Your task to perform on an android device: change notification settings in the gmail app Image 0: 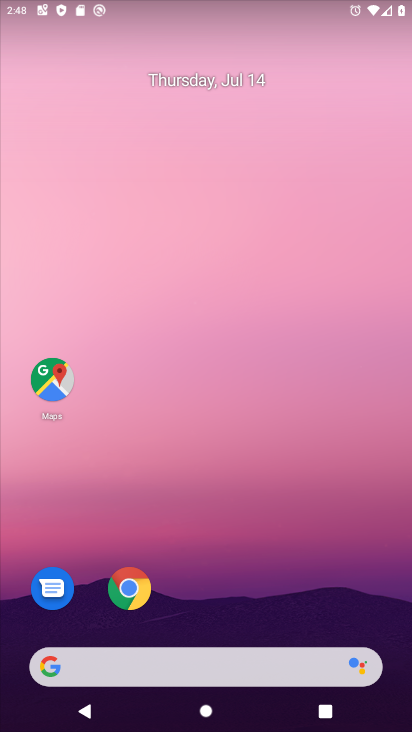
Step 0: drag from (253, 593) to (246, 303)
Your task to perform on an android device: change notification settings in the gmail app Image 1: 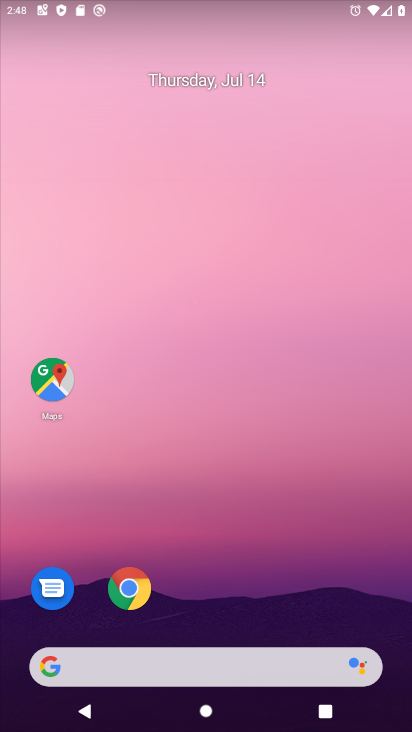
Step 1: drag from (214, 656) to (222, 292)
Your task to perform on an android device: change notification settings in the gmail app Image 2: 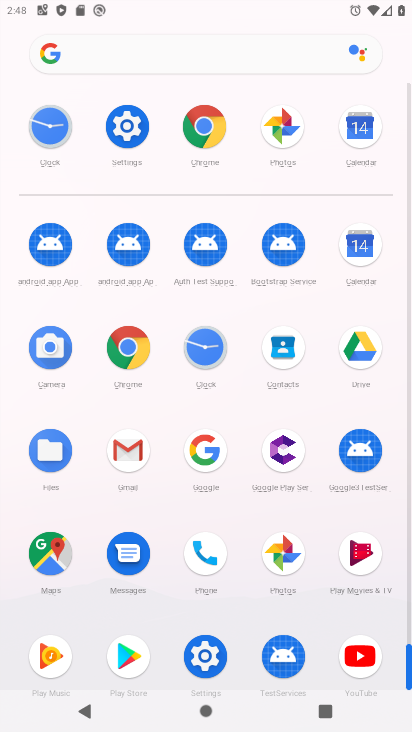
Step 2: click (116, 440)
Your task to perform on an android device: change notification settings in the gmail app Image 3: 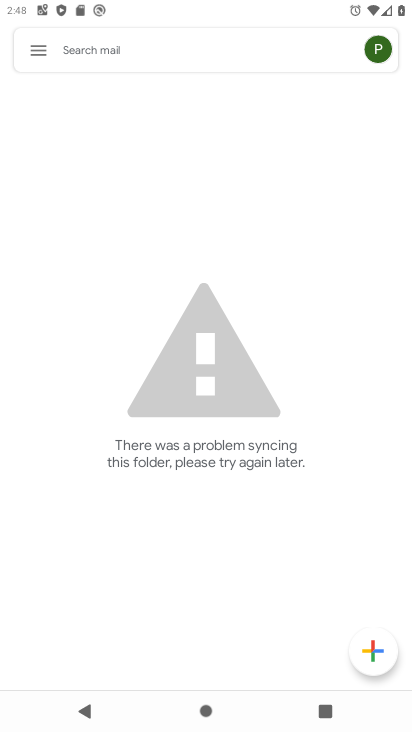
Step 3: click (41, 39)
Your task to perform on an android device: change notification settings in the gmail app Image 4: 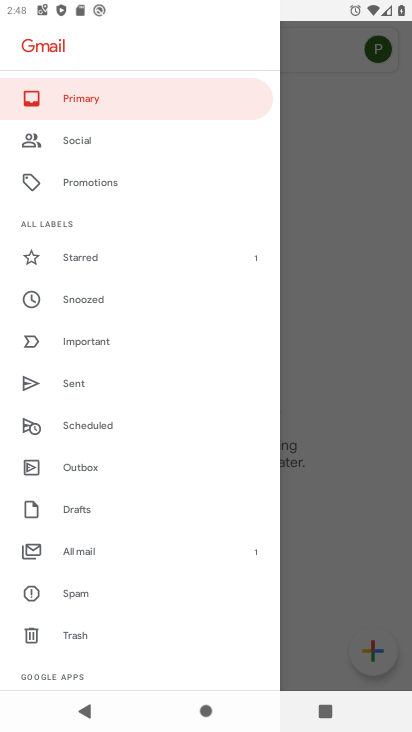
Step 4: drag from (135, 609) to (141, 308)
Your task to perform on an android device: change notification settings in the gmail app Image 5: 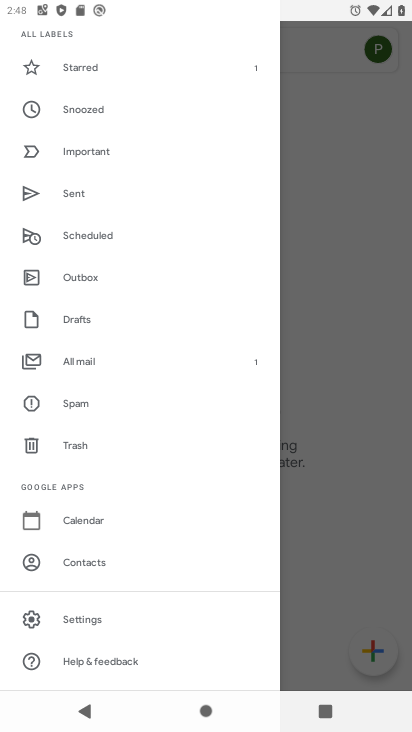
Step 5: click (86, 603)
Your task to perform on an android device: change notification settings in the gmail app Image 6: 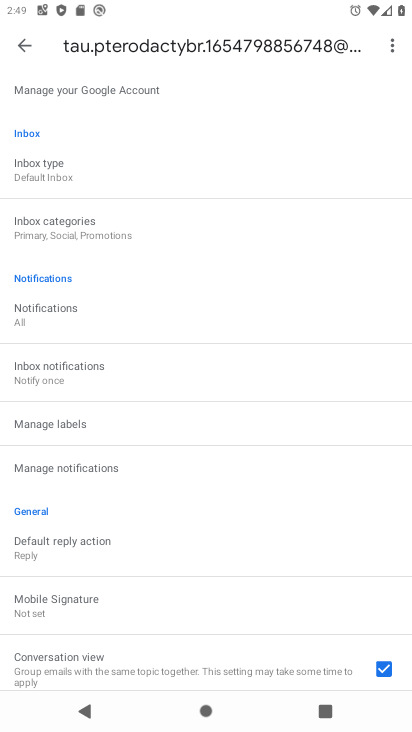
Step 6: click (67, 304)
Your task to perform on an android device: change notification settings in the gmail app Image 7: 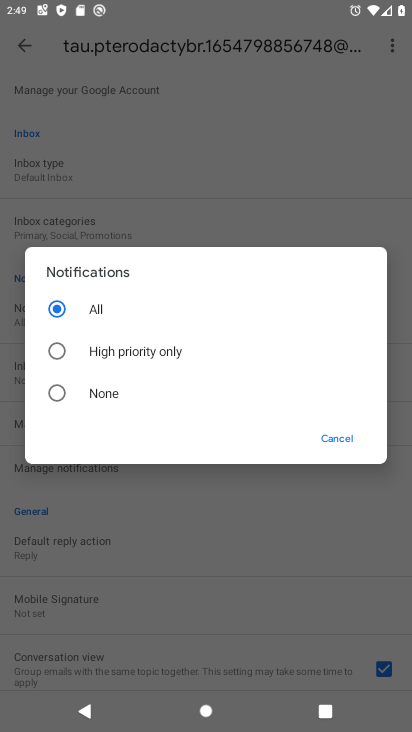
Step 7: click (94, 390)
Your task to perform on an android device: change notification settings in the gmail app Image 8: 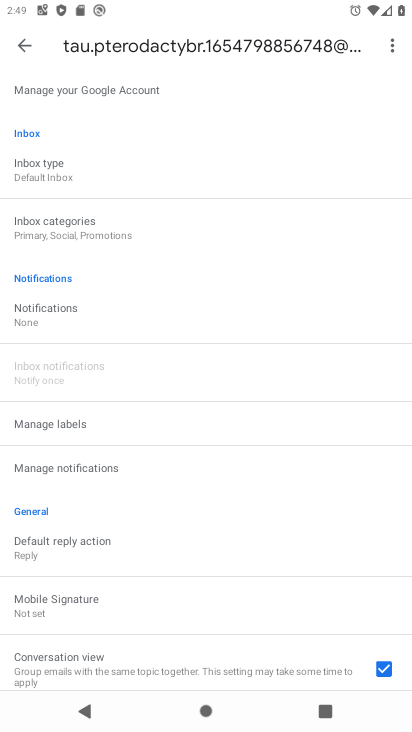
Step 8: task complete